Your task to perform on an android device: Go to accessibility settings Image 0: 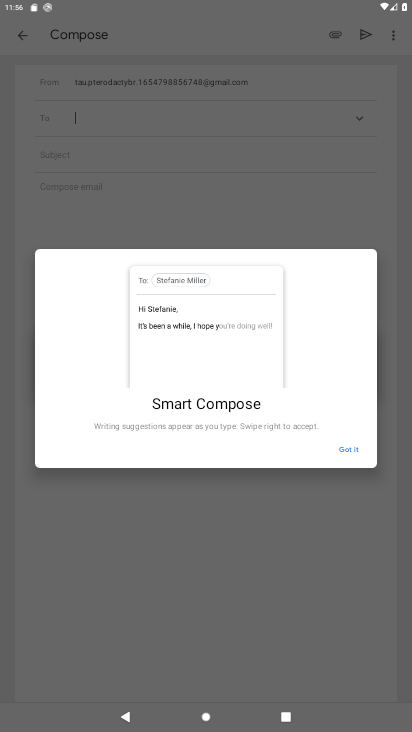
Step 0: press home button
Your task to perform on an android device: Go to accessibility settings Image 1: 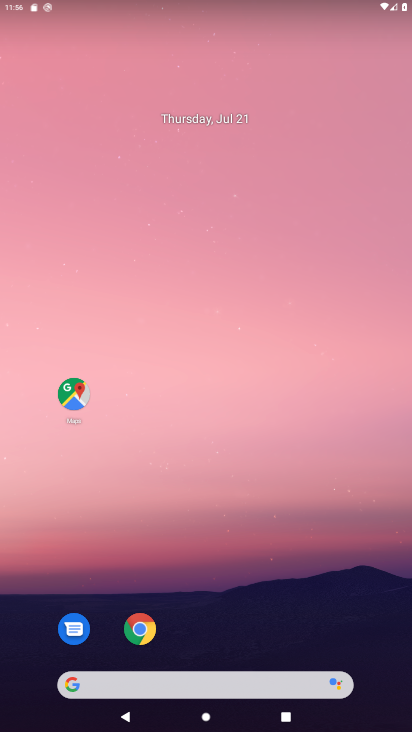
Step 1: drag from (242, 601) to (220, 273)
Your task to perform on an android device: Go to accessibility settings Image 2: 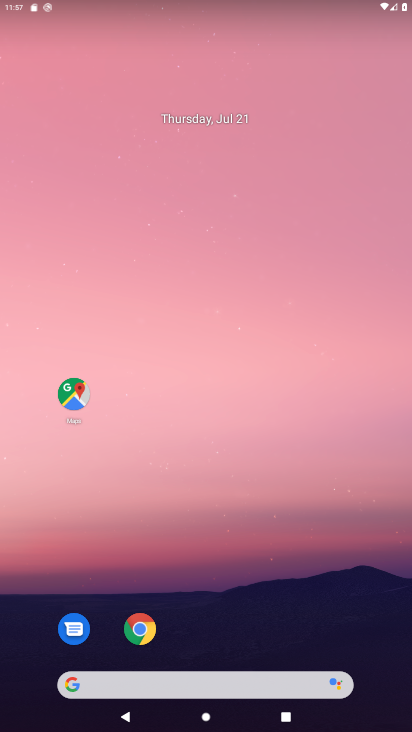
Step 2: drag from (207, 623) to (157, 47)
Your task to perform on an android device: Go to accessibility settings Image 3: 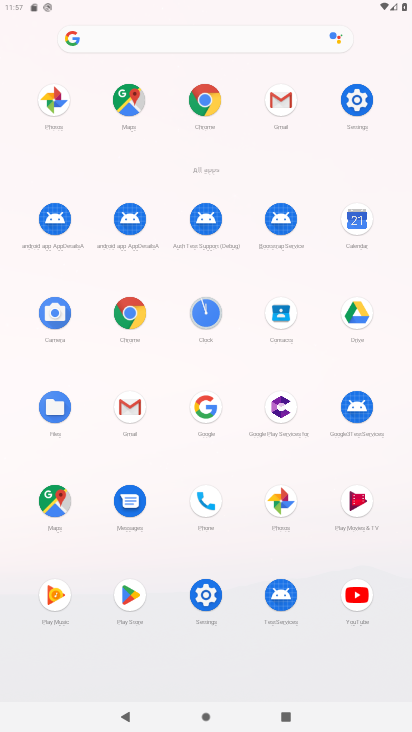
Step 3: click (202, 590)
Your task to perform on an android device: Go to accessibility settings Image 4: 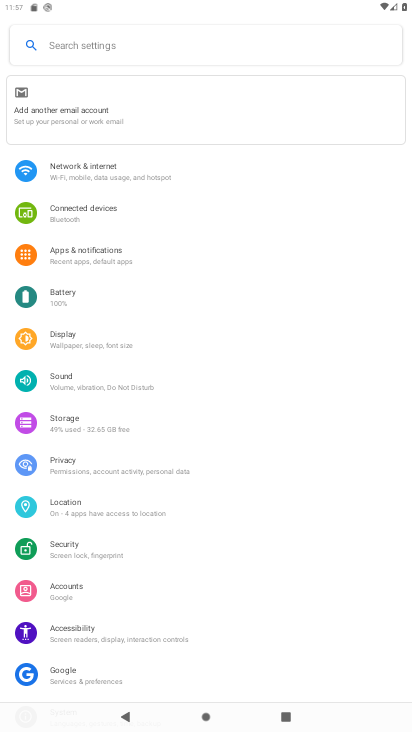
Step 4: drag from (111, 610) to (108, 357)
Your task to perform on an android device: Go to accessibility settings Image 5: 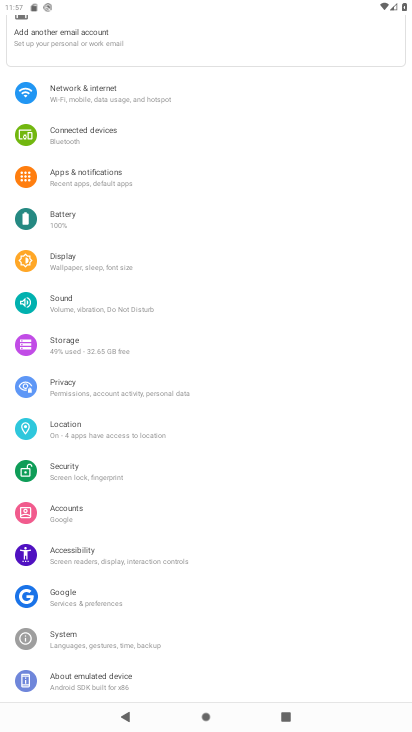
Step 5: click (80, 557)
Your task to perform on an android device: Go to accessibility settings Image 6: 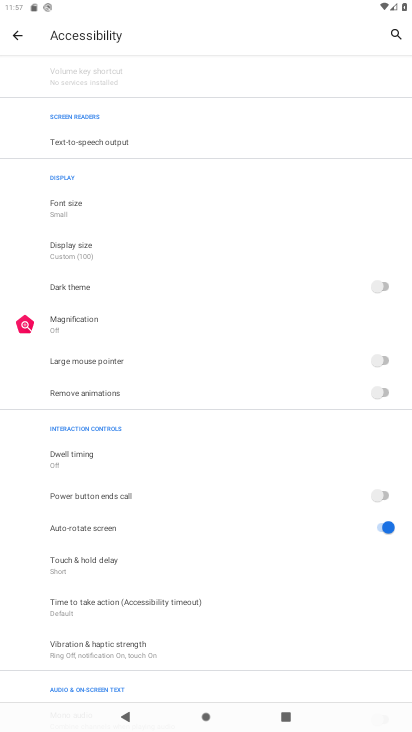
Step 6: task complete